Your task to perform on an android device: find which apps use the phone's location Image 0: 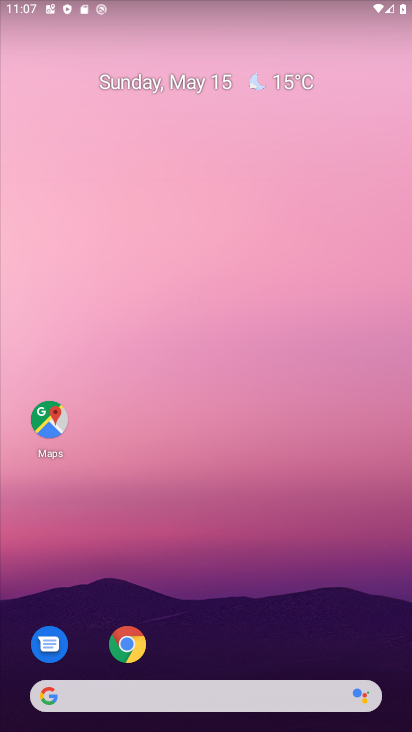
Step 0: drag from (261, 520) to (192, 92)
Your task to perform on an android device: find which apps use the phone's location Image 1: 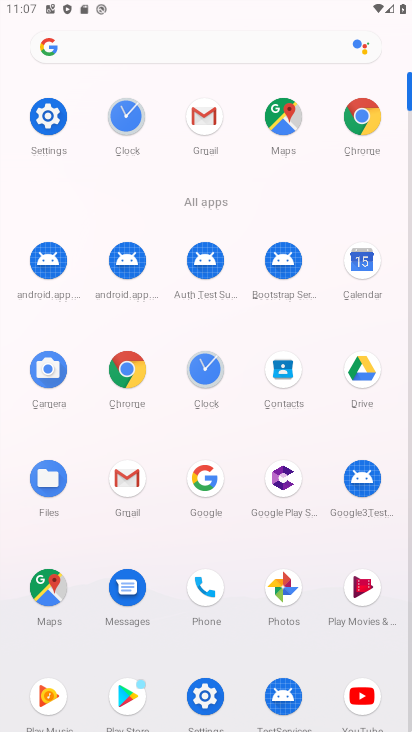
Step 1: click (40, 126)
Your task to perform on an android device: find which apps use the phone's location Image 2: 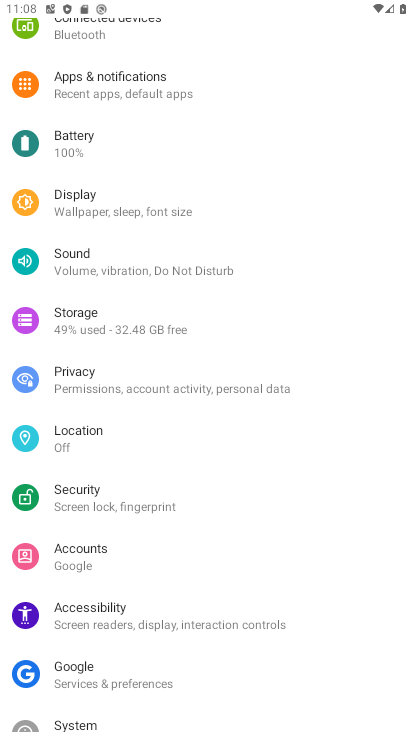
Step 2: click (118, 439)
Your task to perform on an android device: find which apps use the phone's location Image 3: 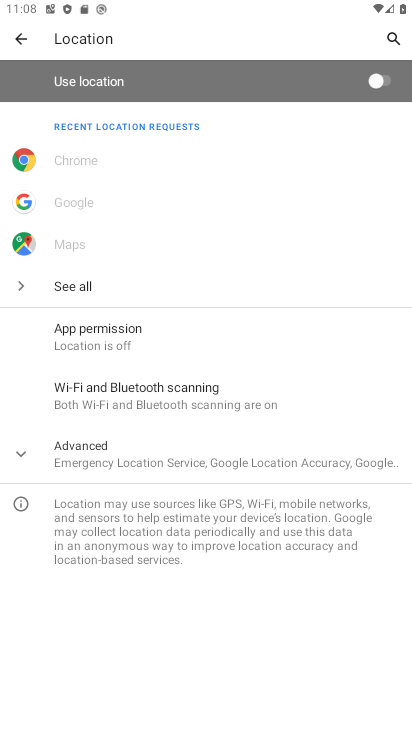
Step 3: click (120, 342)
Your task to perform on an android device: find which apps use the phone's location Image 4: 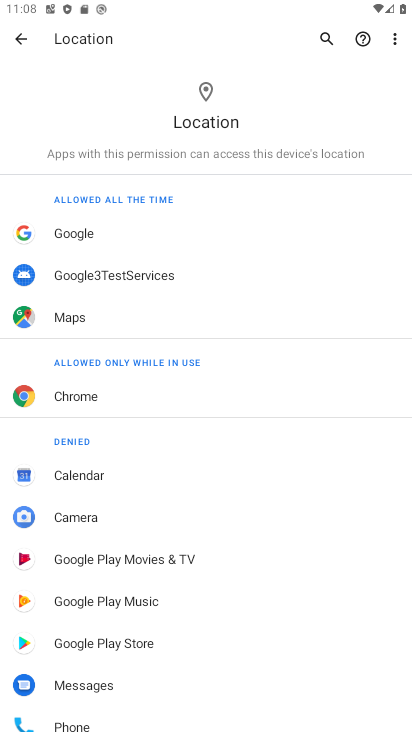
Step 4: task complete